Your task to perform on an android device: check storage Image 0: 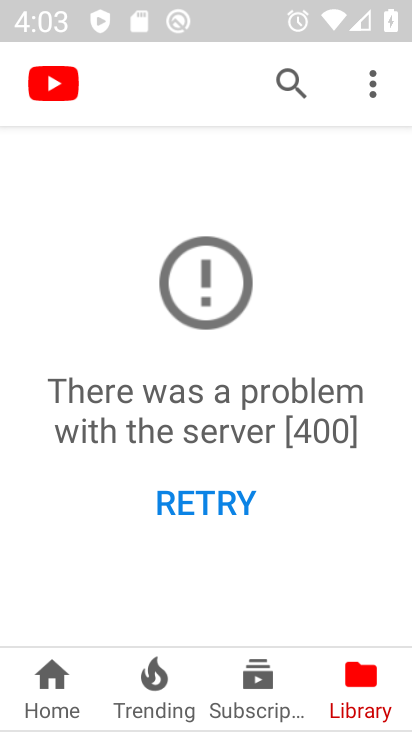
Step 0: press back button
Your task to perform on an android device: check storage Image 1: 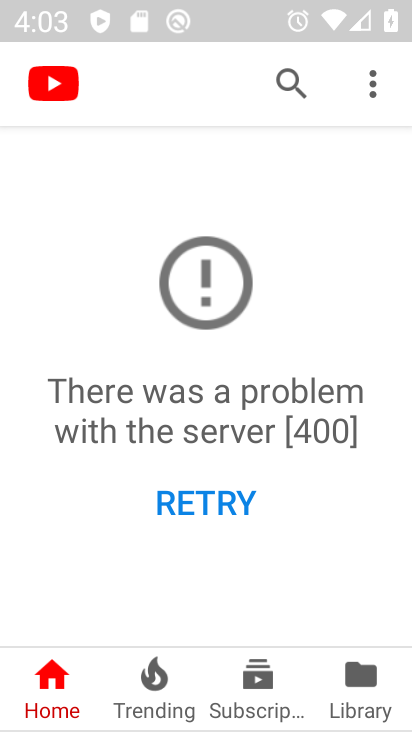
Step 1: press back button
Your task to perform on an android device: check storage Image 2: 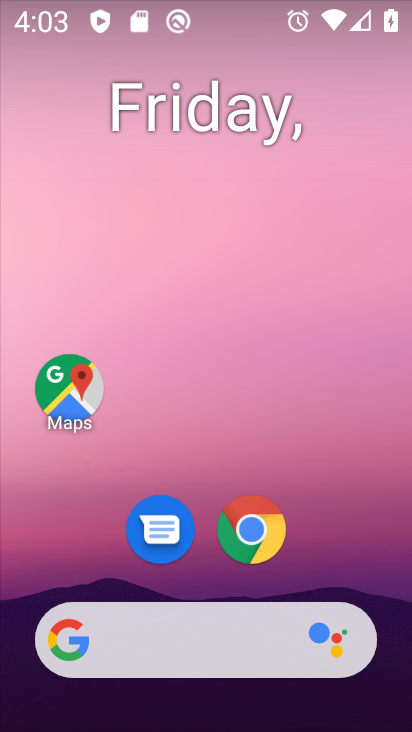
Step 2: drag from (197, 578) to (282, 105)
Your task to perform on an android device: check storage Image 3: 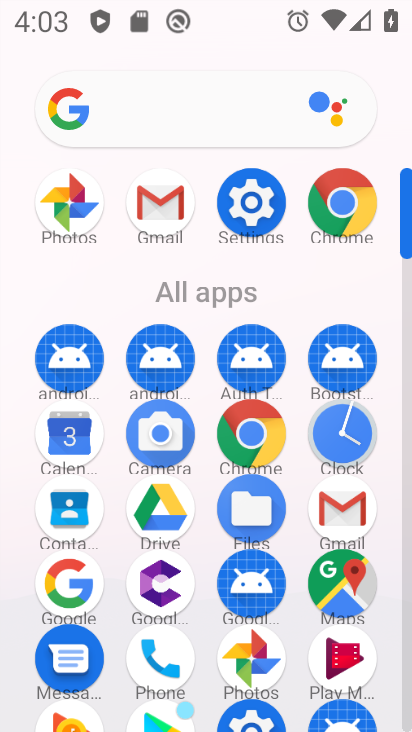
Step 3: drag from (171, 608) to (249, 367)
Your task to perform on an android device: check storage Image 4: 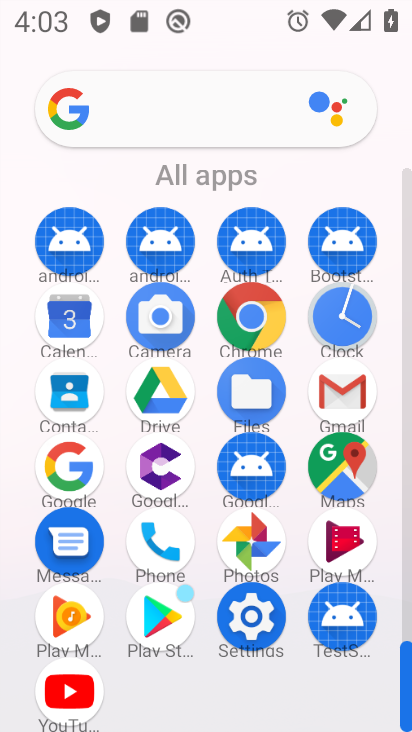
Step 4: click (261, 625)
Your task to perform on an android device: check storage Image 5: 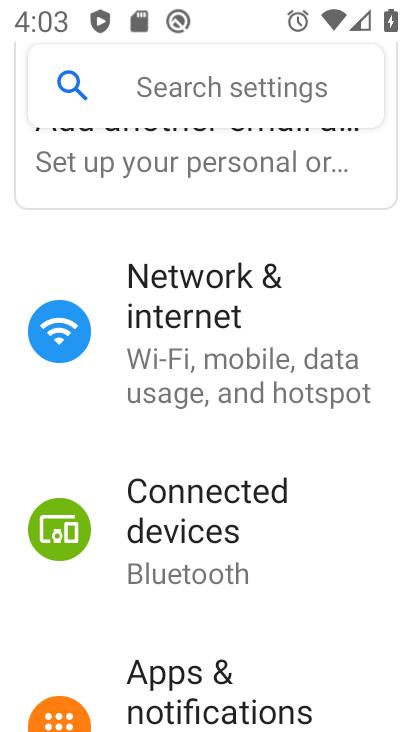
Step 5: drag from (214, 655) to (348, 144)
Your task to perform on an android device: check storage Image 6: 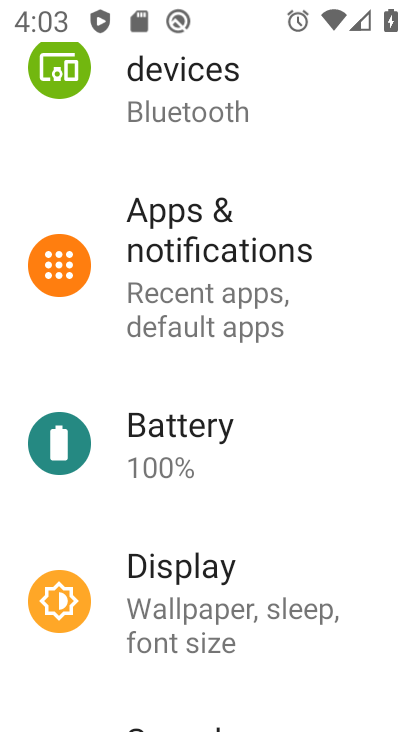
Step 6: drag from (290, 601) to (363, 202)
Your task to perform on an android device: check storage Image 7: 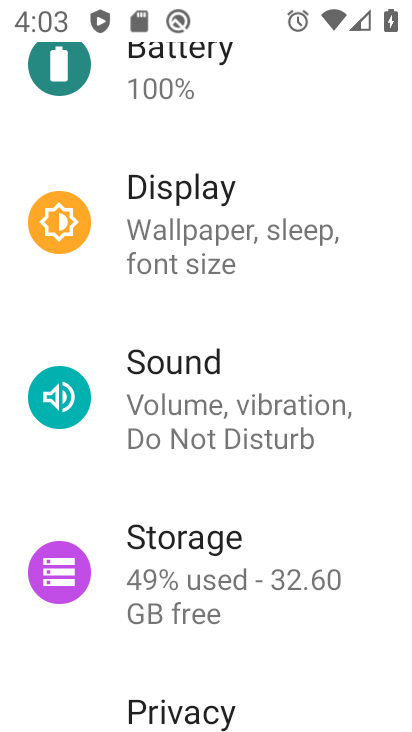
Step 7: click (245, 604)
Your task to perform on an android device: check storage Image 8: 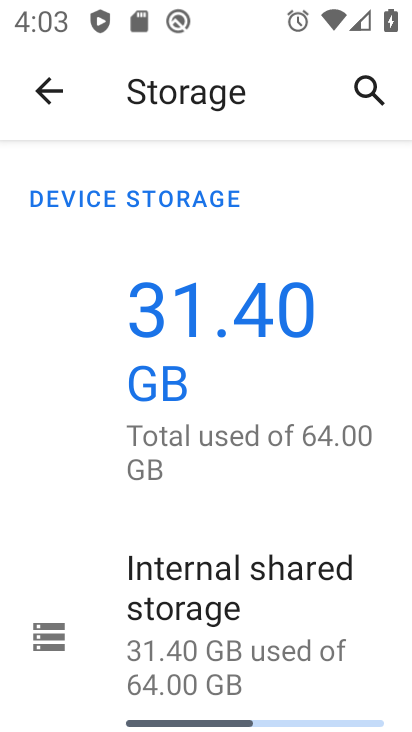
Step 8: task complete